Your task to perform on an android device: refresh tabs in the chrome app Image 0: 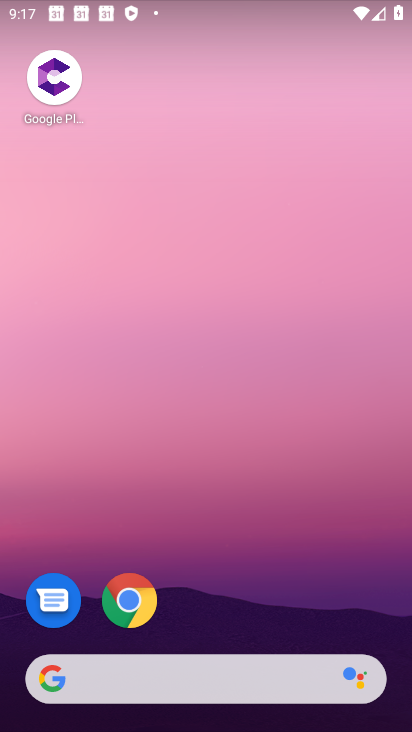
Step 0: click (129, 599)
Your task to perform on an android device: refresh tabs in the chrome app Image 1: 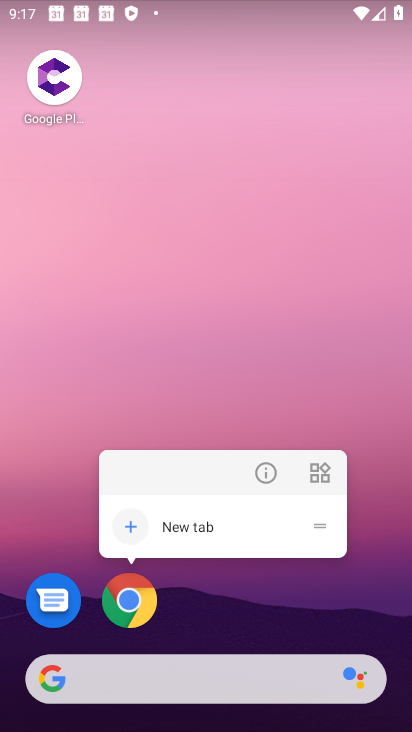
Step 1: click (134, 593)
Your task to perform on an android device: refresh tabs in the chrome app Image 2: 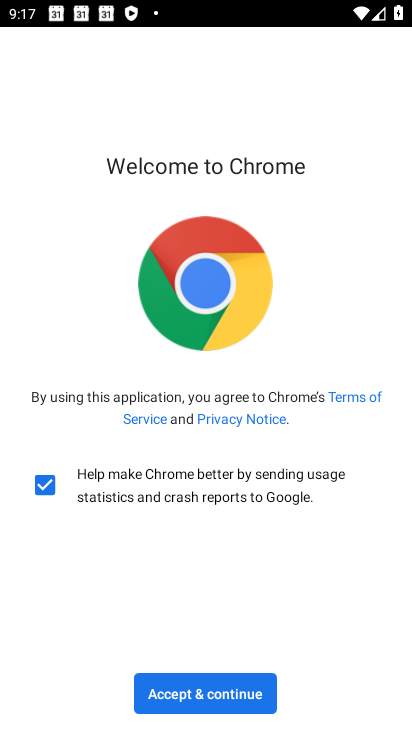
Step 2: click (179, 705)
Your task to perform on an android device: refresh tabs in the chrome app Image 3: 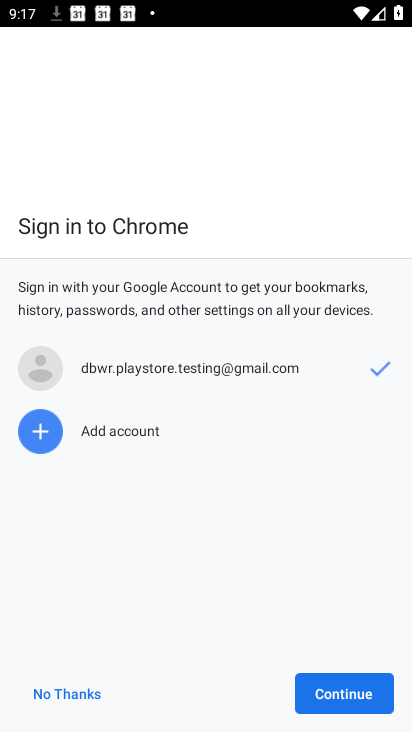
Step 3: click (349, 692)
Your task to perform on an android device: refresh tabs in the chrome app Image 4: 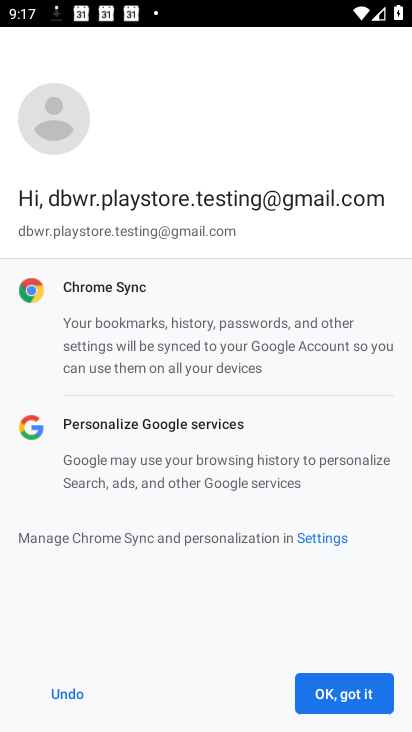
Step 4: click (349, 692)
Your task to perform on an android device: refresh tabs in the chrome app Image 5: 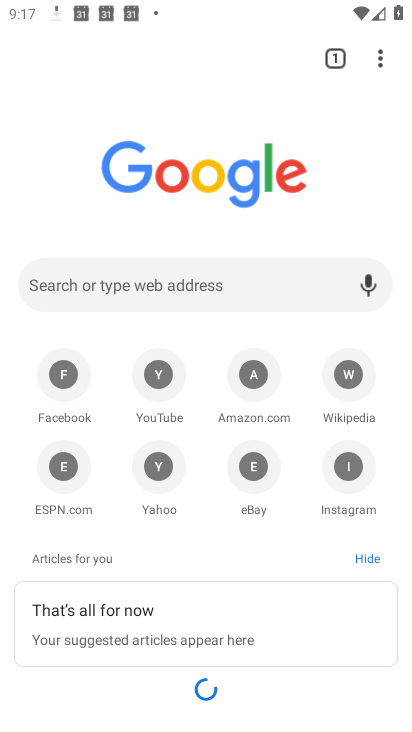
Step 5: click (381, 49)
Your task to perform on an android device: refresh tabs in the chrome app Image 6: 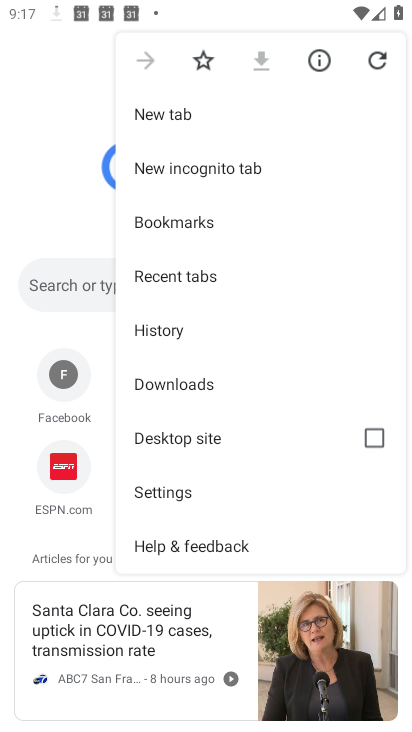
Step 6: click (376, 61)
Your task to perform on an android device: refresh tabs in the chrome app Image 7: 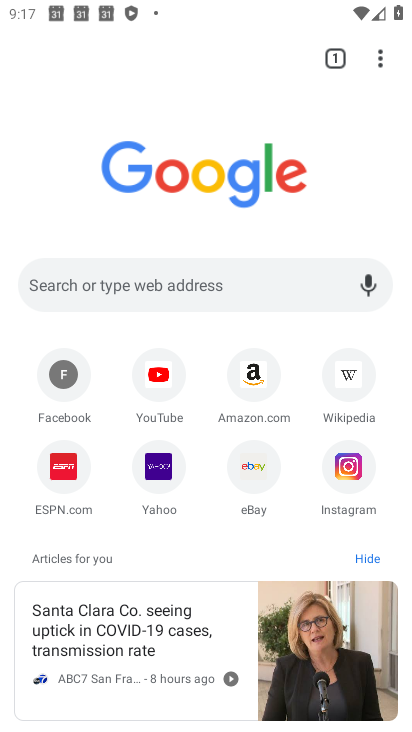
Step 7: task complete